Your task to perform on an android device: manage bookmarks in the chrome app Image 0: 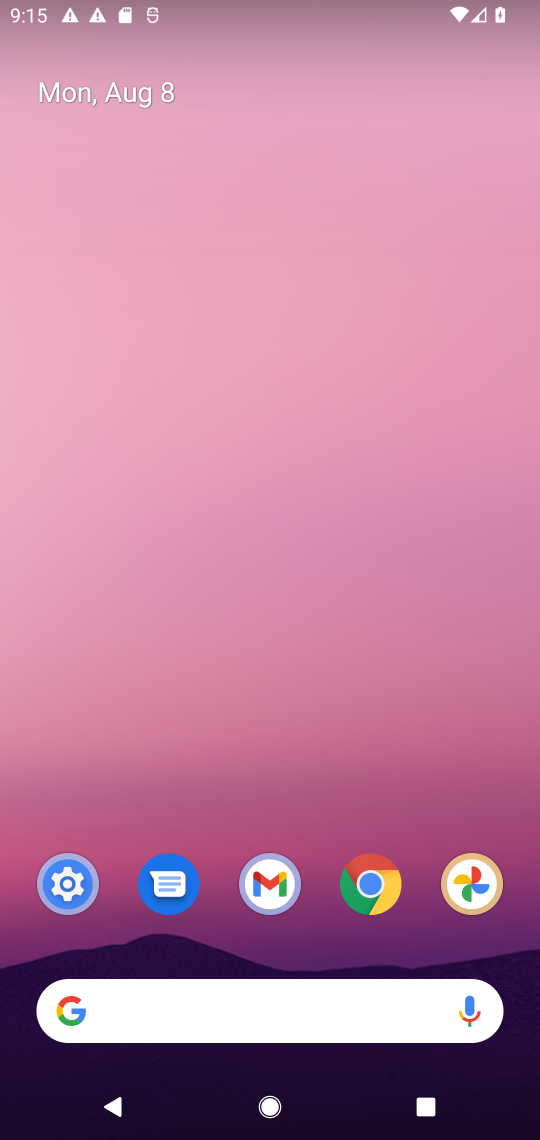
Step 0: click (376, 893)
Your task to perform on an android device: manage bookmarks in the chrome app Image 1: 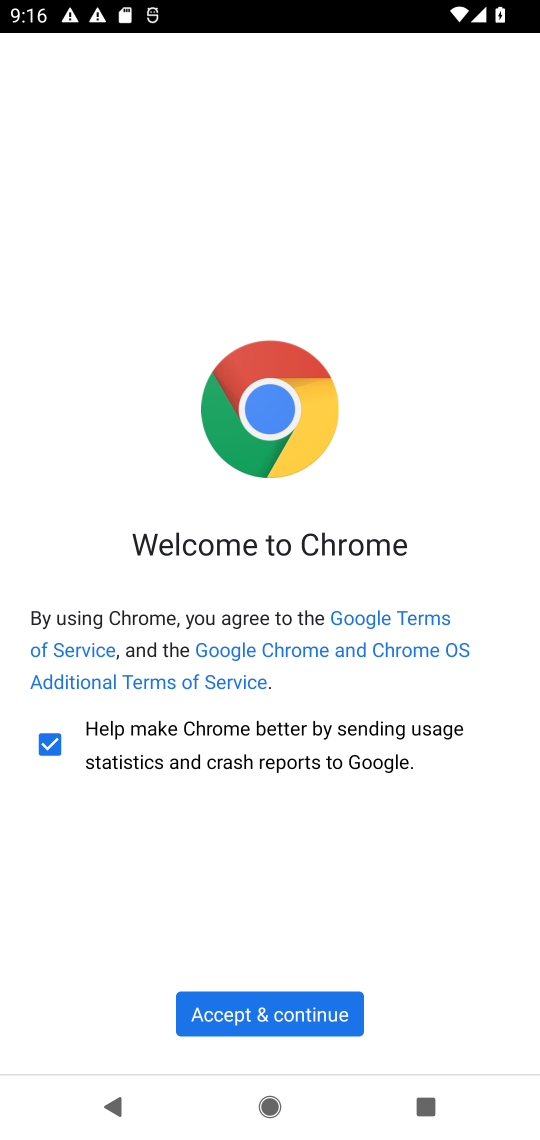
Step 1: click (261, 1013)
Your task to perform on an android device: manage bookmarks in the chrome app Image 2: 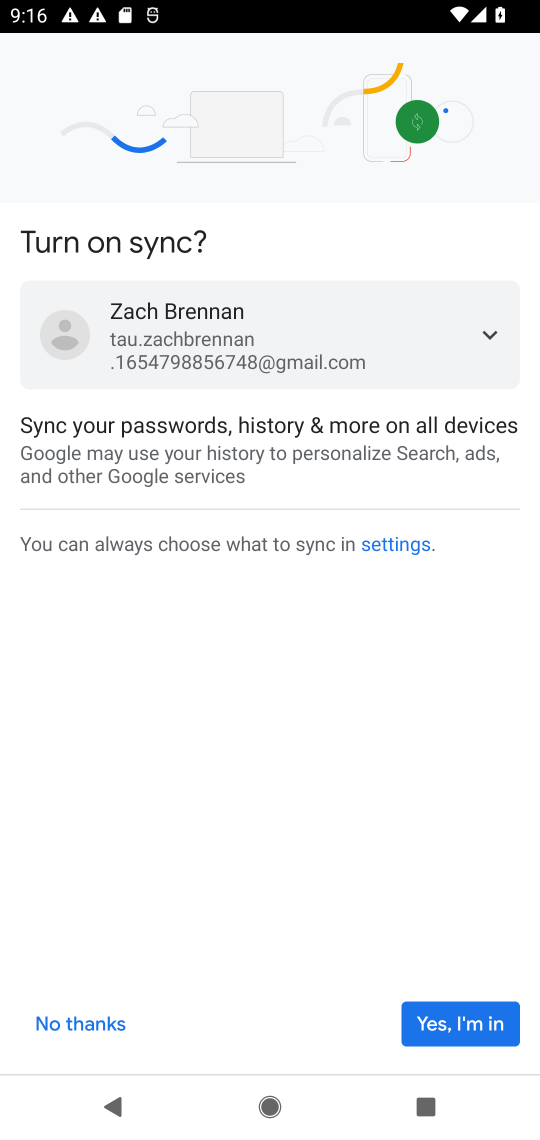
Step 2: click (455, 1018)
Your task to perform on an android device: manage bookmarks in the chrome app Image 3: 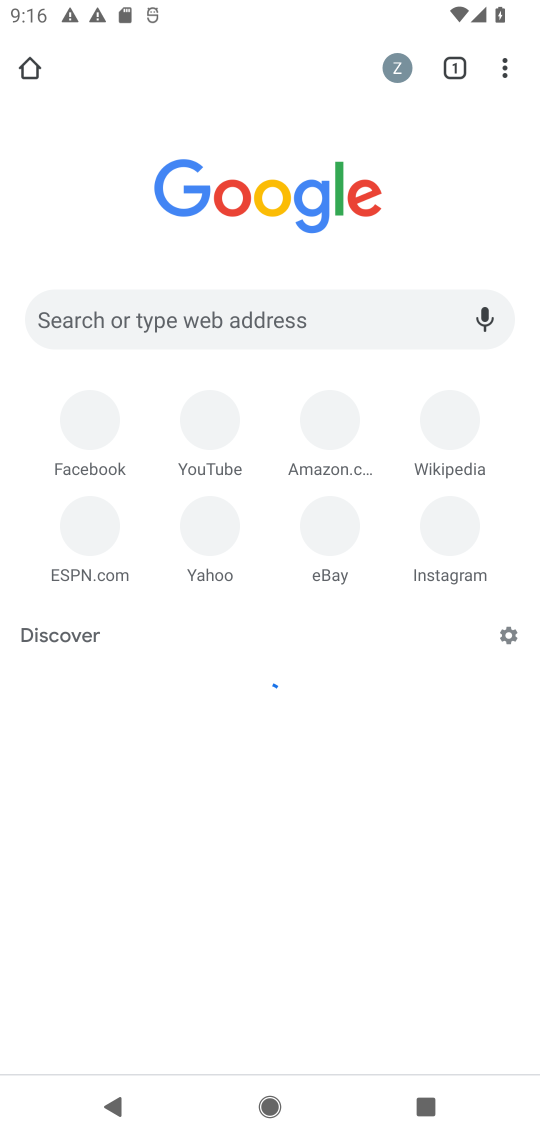
Step 3: click (500, 67)
Your task to perform on an android device: manage bookmarks in the chrome app Image 4: 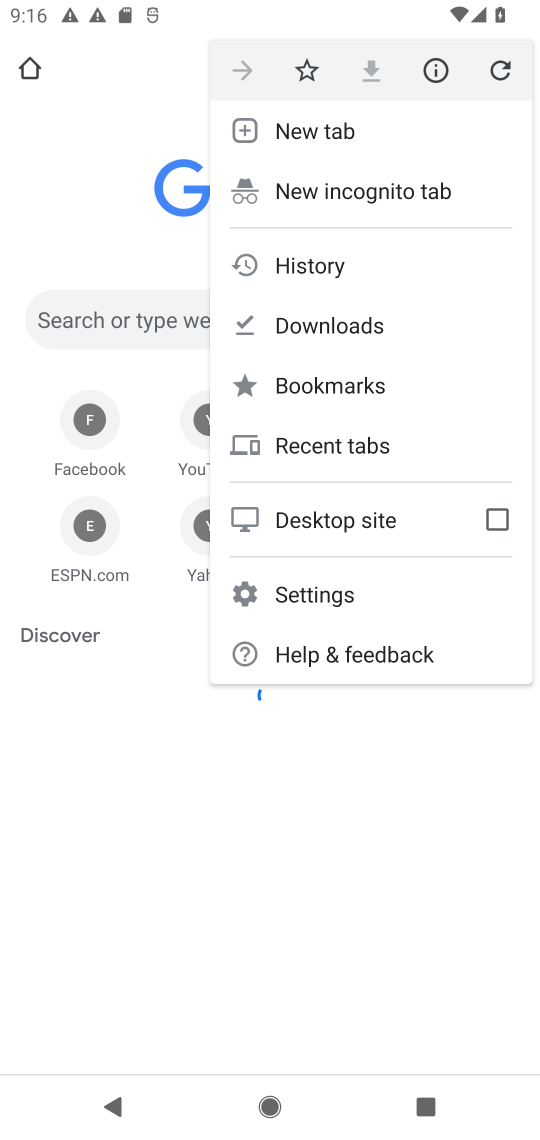
Step 4: click (333, 384)
Your task to perform on an android device: manage bookmarks in the chrome app Image 5: 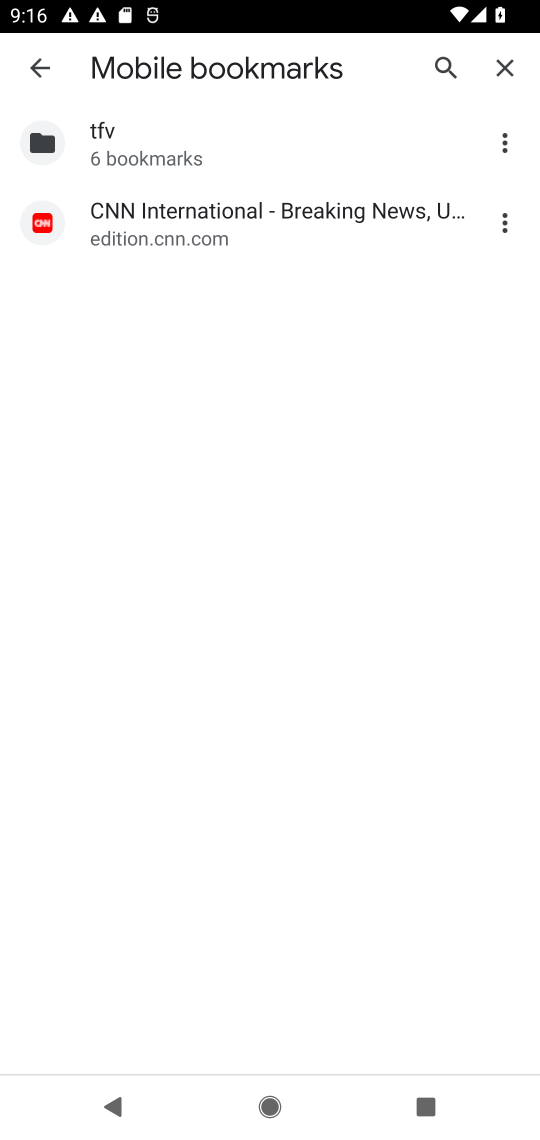
Step 5: click (508, 137)
Your task to perform on an android device: manage bookmarks in the chrome app Image 6: 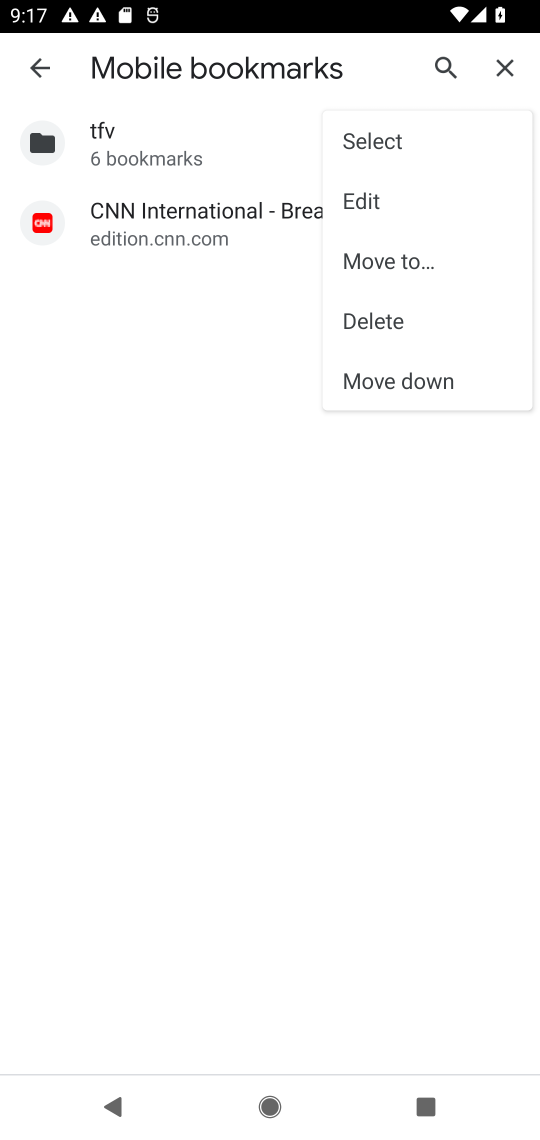
Step 6: click (380, 192)
Your task to perform on an android device: manage bookmarks in the chrome app Image 7: 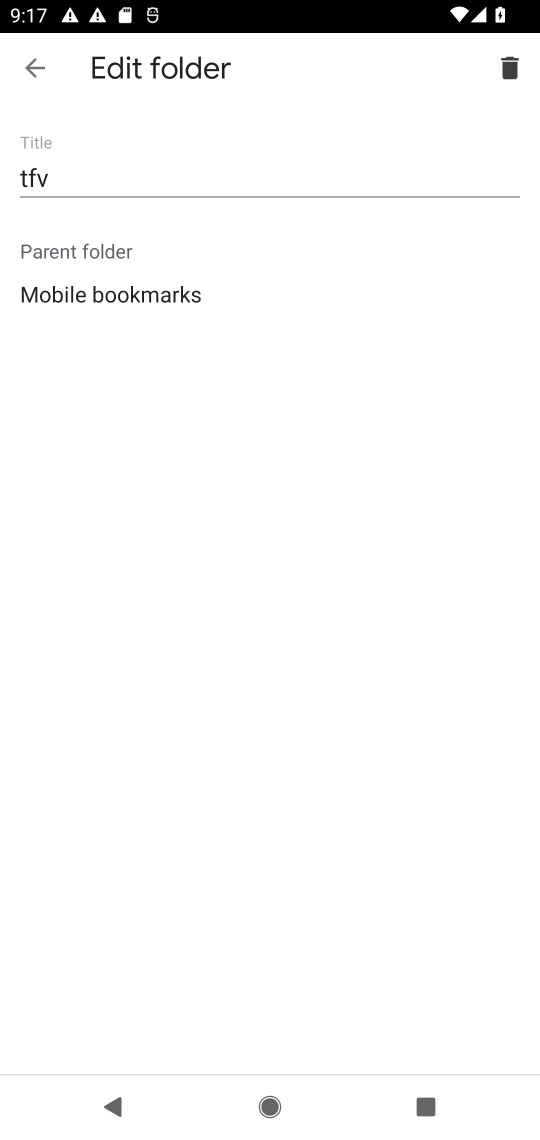
Step 7: task complete